Your task to perform on an android device: Open the Play Movies app and select the watchlist tab. Image 0: 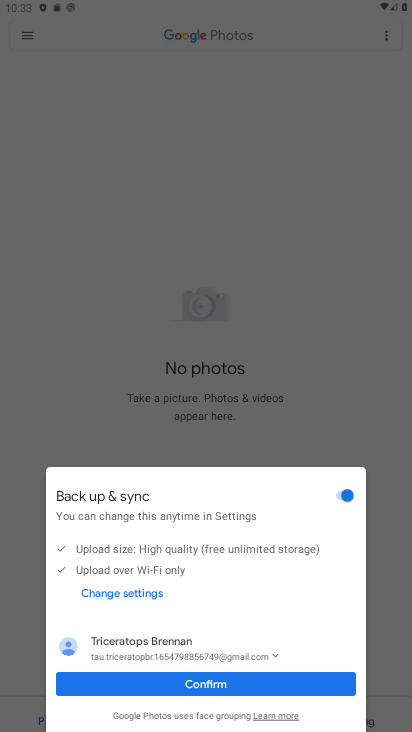
Step 0: press home button
Your task to perform on an android device: Open the Play Movies app and select the watchlist tab. Image 1: 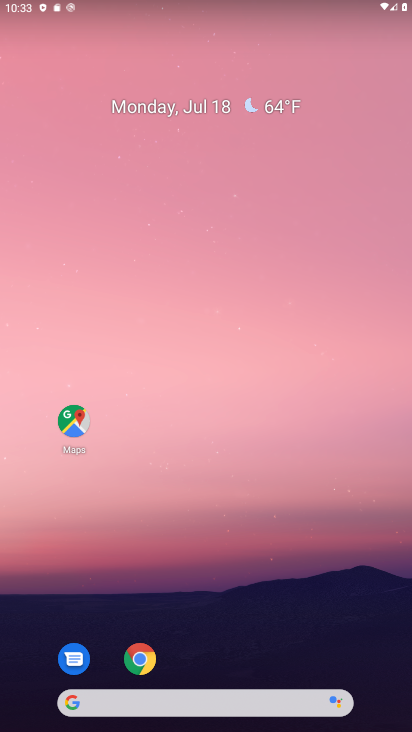
Step 1: drag from (200, 715) to (305, 253)
Your task to perform on an android device: Open the Play Movies app and select the watchlist tab. Image 2: 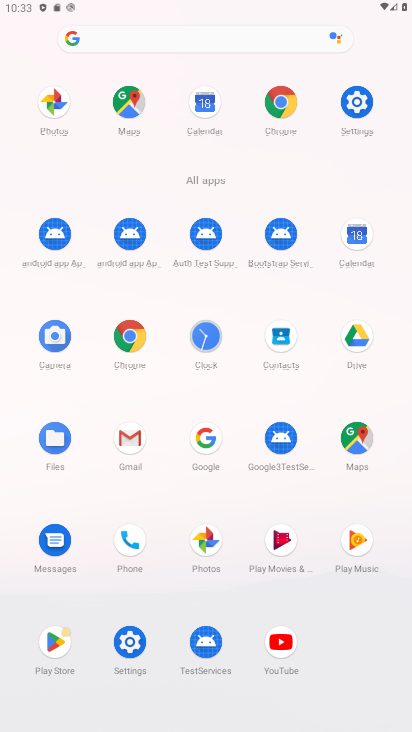
Step 2: click (275, 549)
Your task to perform on an android device: Open the Play Movies app and select the watchlist tab. Image 3: 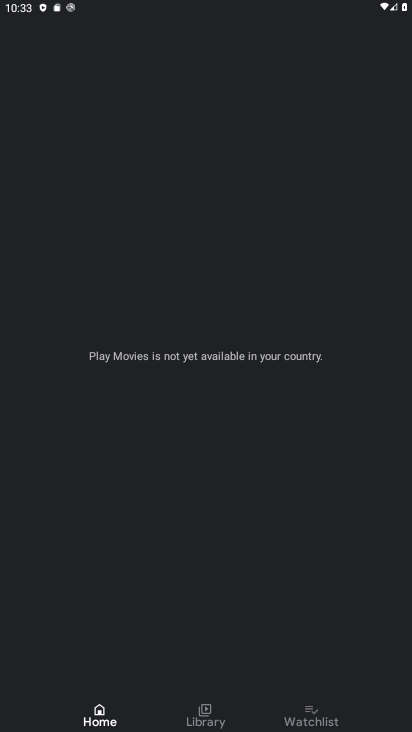
Step 3: click (319, 715)
Your task to perform on an android device: Open the Play Movies app and select the watchlist tab. Image 4: 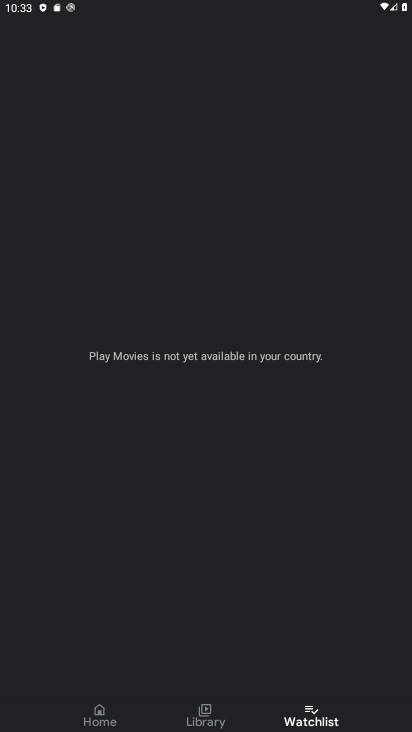
Step 4: task complete